Your task to perform on an android device: set the stopwatch Image 0: 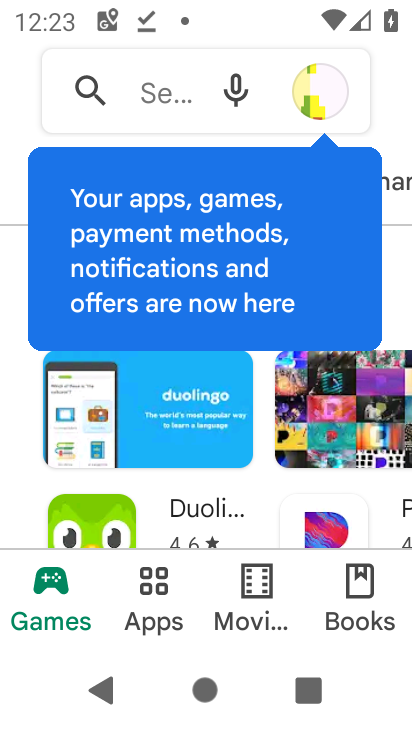
Step 0: press home button
Your task to perform on an android device: set the stopwatch Image 1: 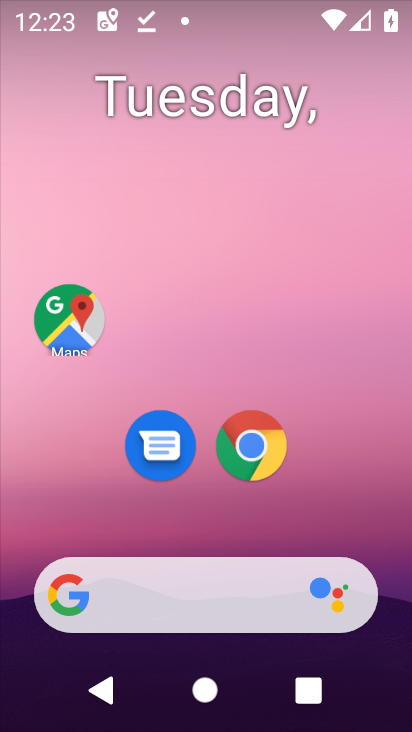
Step 1: drag from (341, 485) to (265, 100)
Your task to perform on an android device: set the stopwatch Image 2: 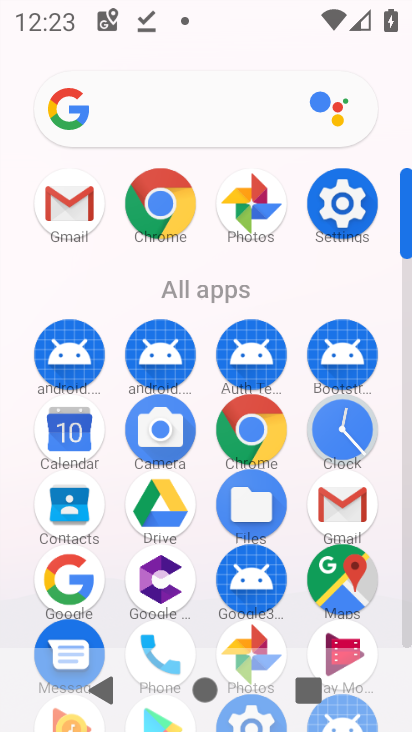
Step 2: click (339, 441)
Your task to perform on an android device: set the stopwatch Image 3: 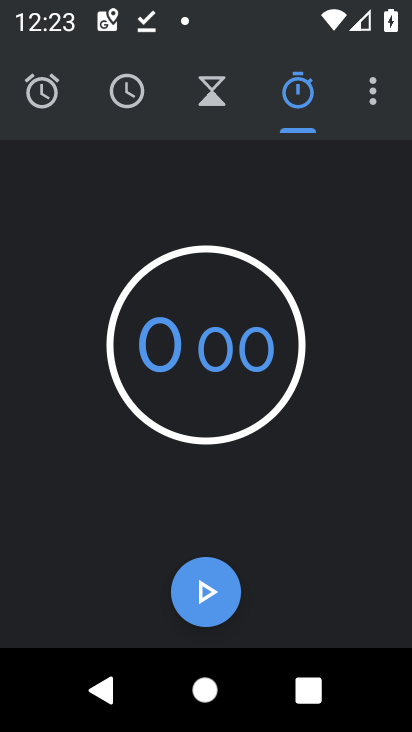
Step 3: task complete